Your task to perform on an android device: turn off javascript in the chrome app Image 0: 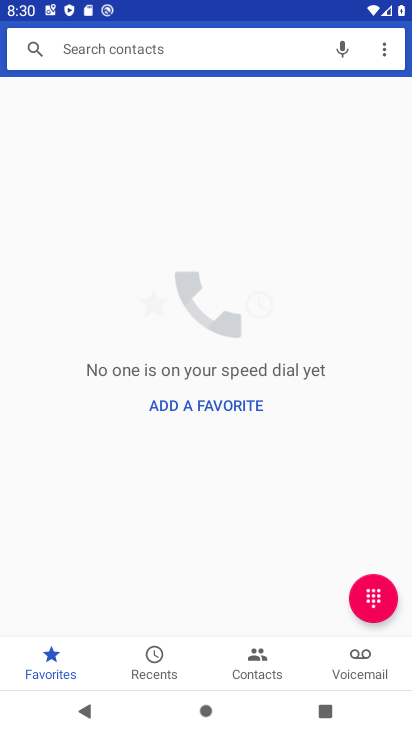
Step 0: press home button
Your task to perform on an android device: turn off javascript in the chrome app Image 1: 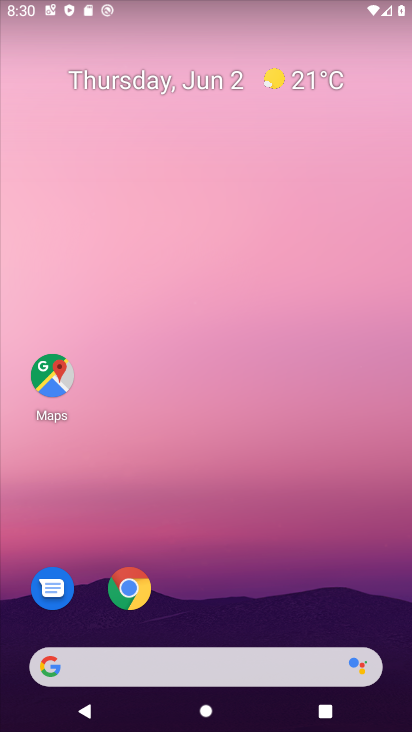
Step 1: click (138, 595)
Your task to perform on an android device: turn off javascript in the chrome app Image 2: 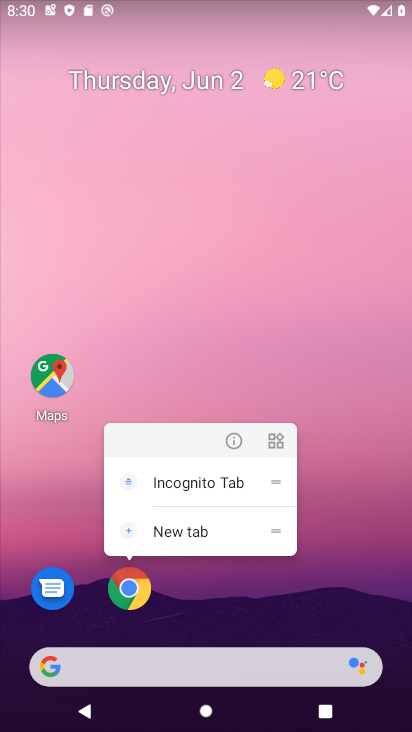
Step 2: click (131, 597)
Your task to perform on an android device: turn off javascript in the chrome app Image 3: 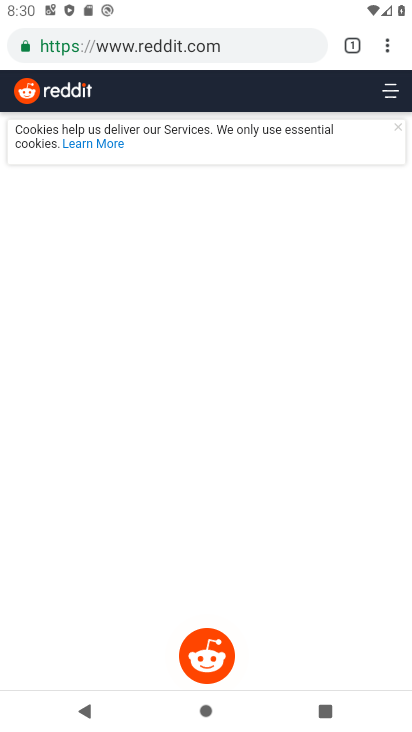
Step 3: drag from (383, 55) to (255, 548)
Your task to perform on an android device: turn off javascript in the chrome app Image 4: 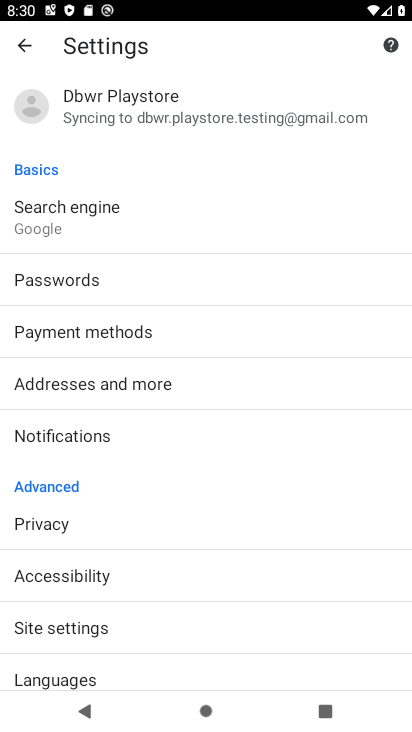
Step 4: click (99, 618)
Your task to perform on an android device: turn off javascript in the chrome app Image 5: 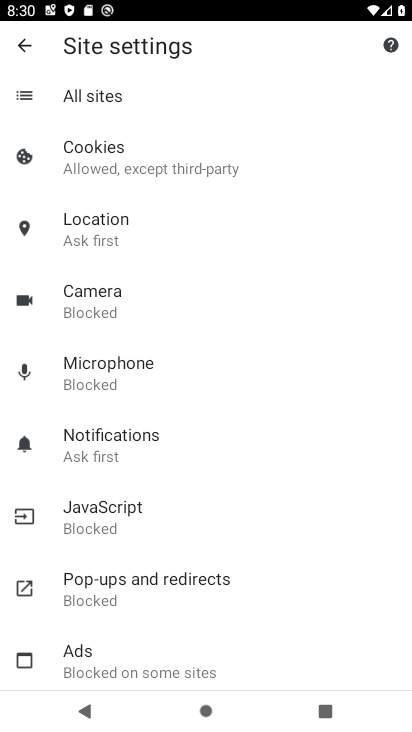
Step 5: click (120, 521)
Your task to perform on an android device: turn off javascript in the chrome app Image 6: 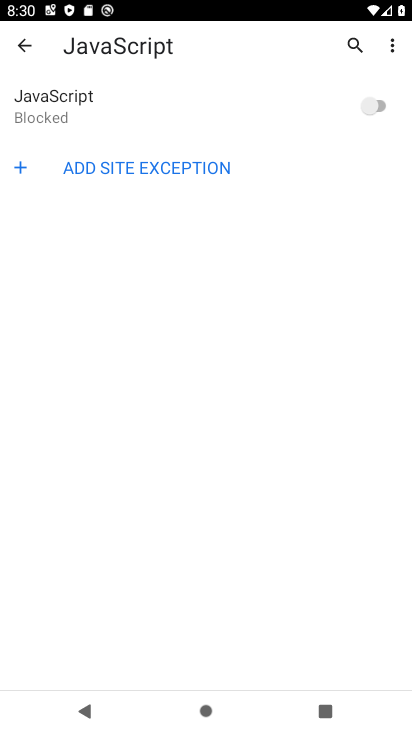
Step 6: task complete